Your task to perform on an android device: turn off priority inbox in the gmail app Image 0: 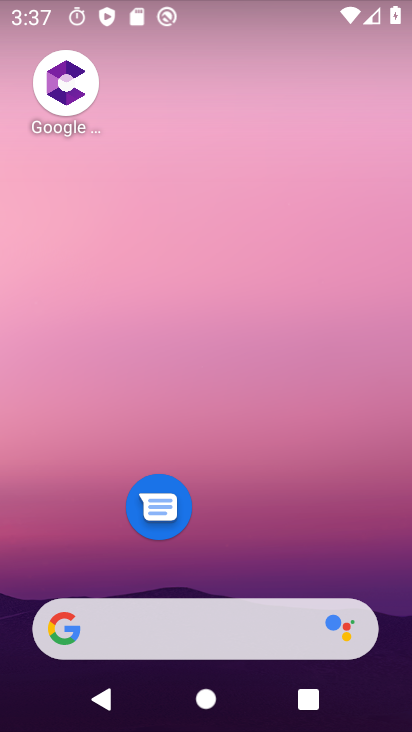
Step 0: drag from (259, 459) to (285, 71)
Your task to perform on an android device: turn off priority inbox in the gmail app Image 1: 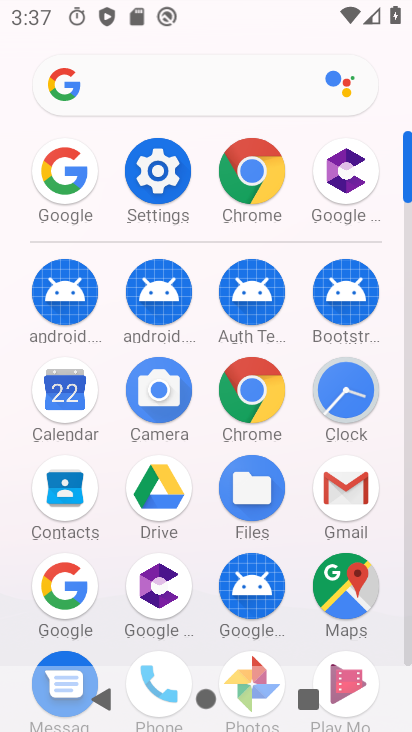
Step 1: click (349, 481)
Your task to perform on an android device: turn off priority inbox in the gmail app Image 2: 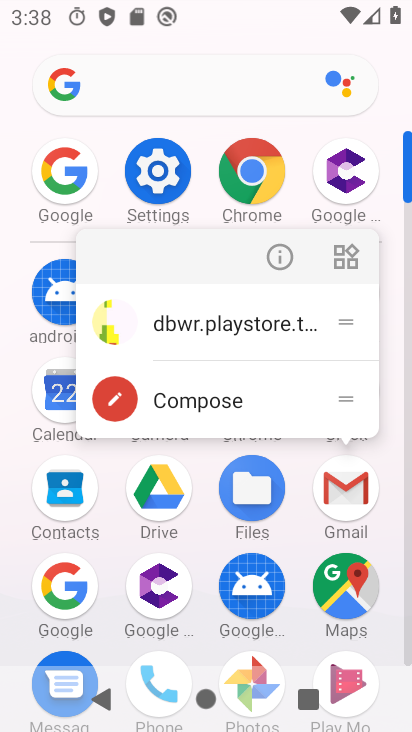
Step 2: click (345, 488)
Your task to perform on an android device: turn off priority inbox in the gmail app Image 3: 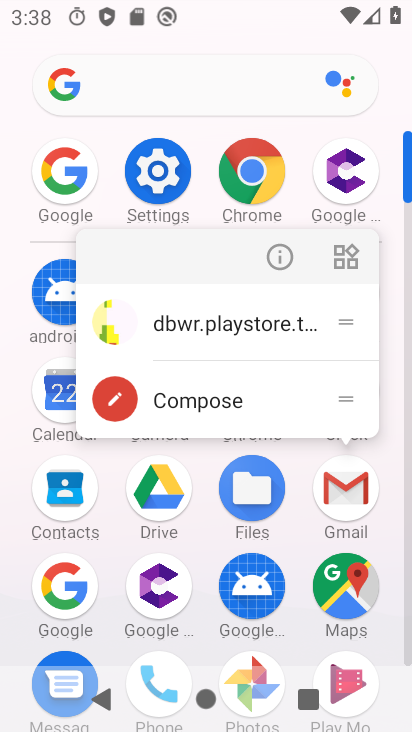
Step 3: click (345, 488)
Your task to perform on an android device: turn off priority inbox in the gmail app Image 4: 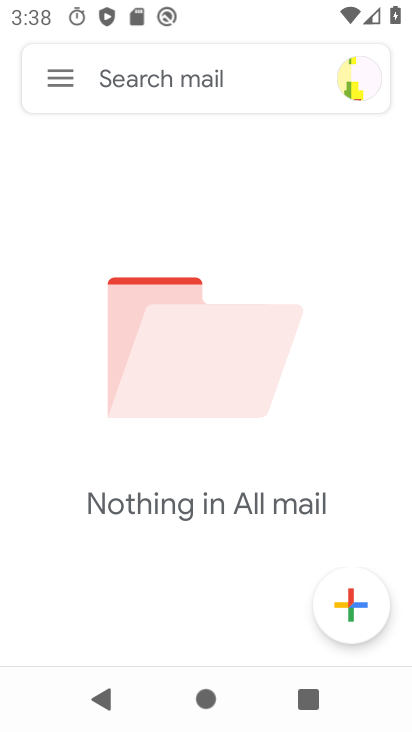
Step 4: click (49, 69)
Your task to perform on an android device: turn off priority inbox in the gmail app Image 5: 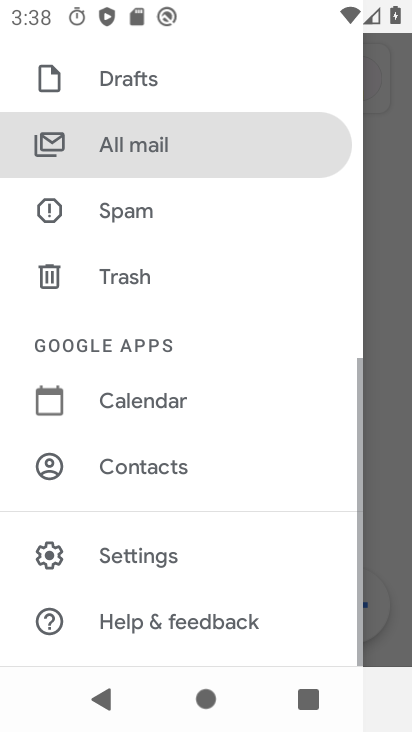
Step 5: click (125, 567)
Your task to perform on an android device: turn off priority inbox in the gmail app Image 6: 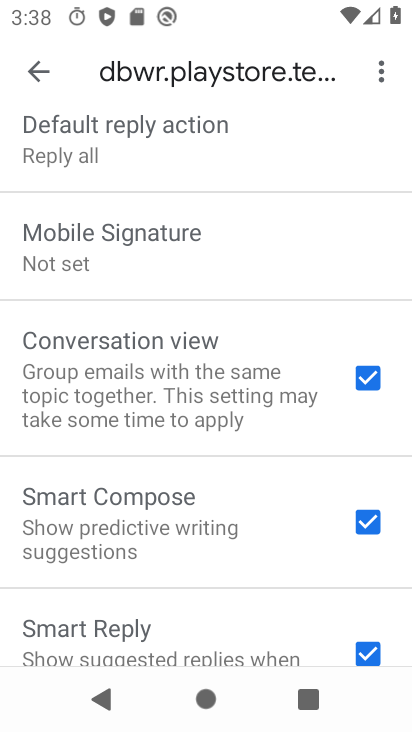
Step 6: drag from (191, 183) to (130, 653)
Your task to perform on an android device: turn off priority inbox in the gmail app Image 7: 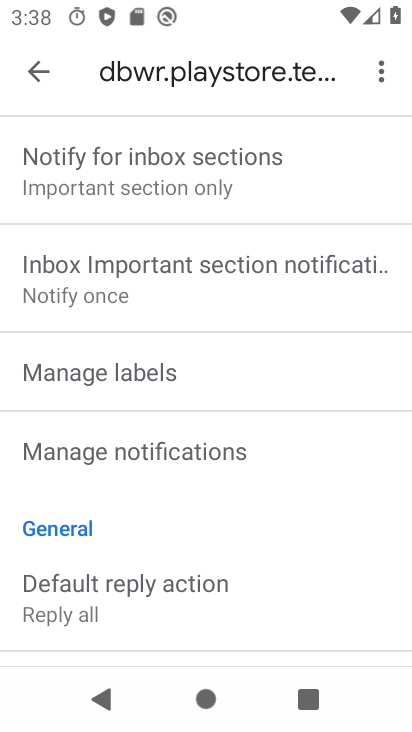
Step 7: drag from (133, 183) to (77, 594)
Your task to perform on an android device: turn off priority inbox in the gmail app Image 8: 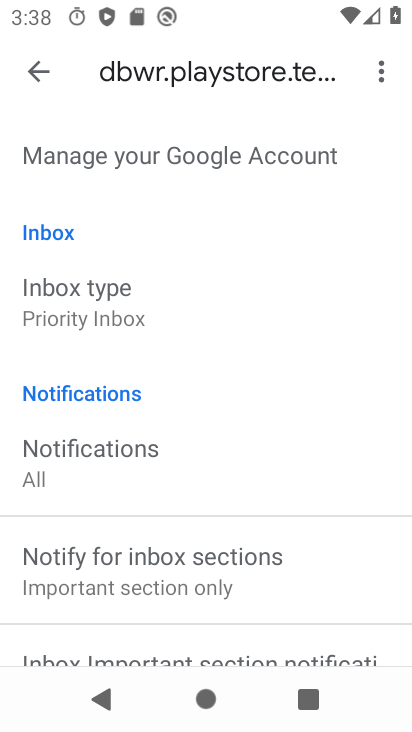
Step 8: click (119, 289)
Your task to perform on an android device: turn off priority inbox in the gmail app Image 9: 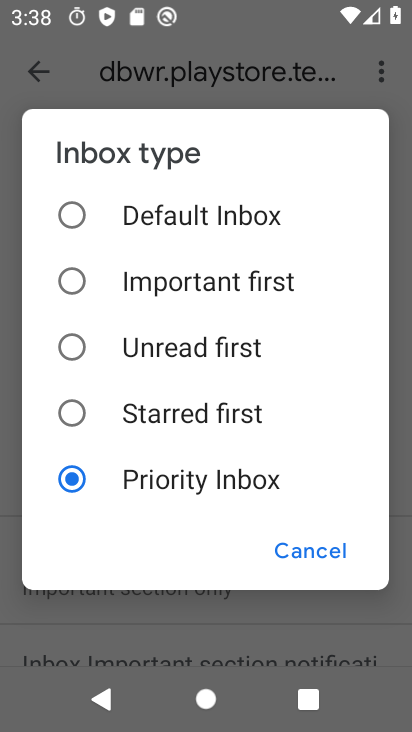
Step 9: click (70, 218)
Your task to perform on an android device: turn off priority inbox in the gmail app Image 10: 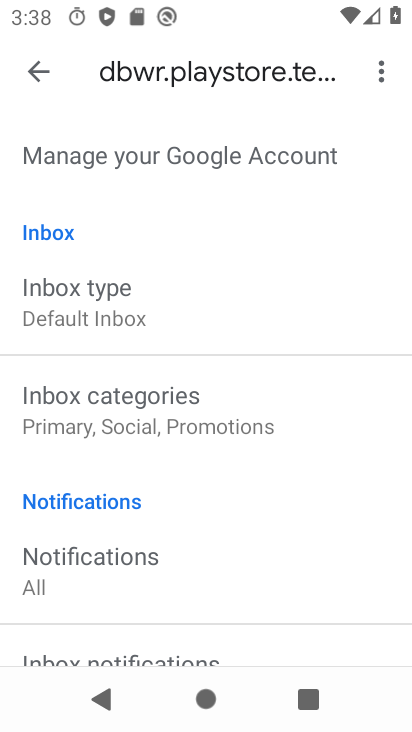
Step 10: task complete